Your task to perform on an android device: Open Google Chrome and click the shortcut for Amazon.com Image 0: 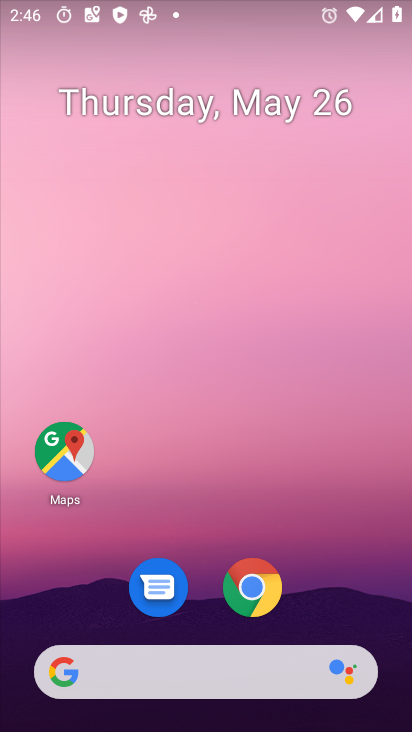
Step 0: drag from (363, 619) to (394, 161)
Your task to perform on an android device: Open Google Chrome and click the shortcut for Amazon.com Image 1: 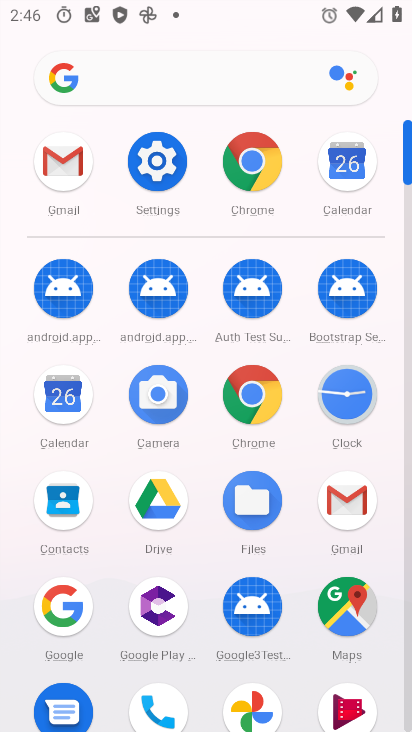
Step 1: click (271, 403)
Your task to perform on an android device: Open Google Chrome and click the shortcut for Amazon.com Image 2: 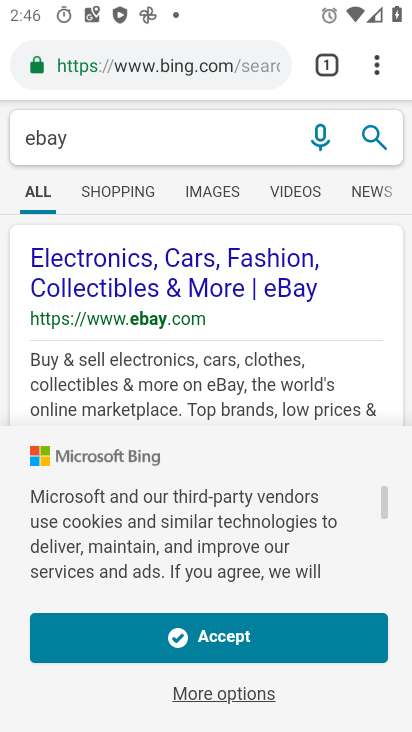
Step 2: press back button
Your task to perform on an android device: Open Google Chrome and click the shortcut for Amazon.com Image 3: 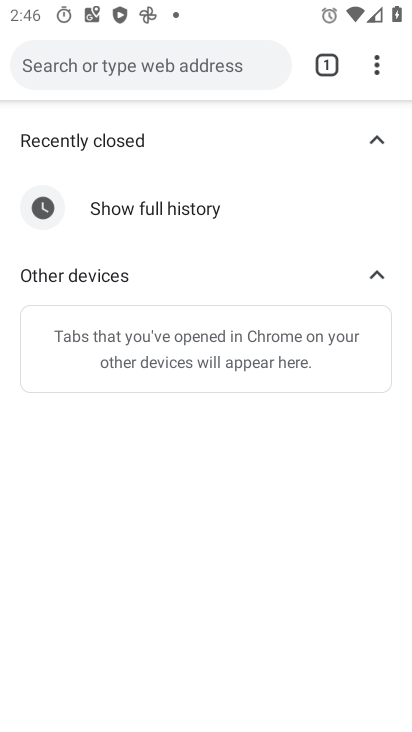
Step 3: press back button
Your task to perform on an android device: Open Google Chrome and click the shortcut for Amazon.com Image 4: 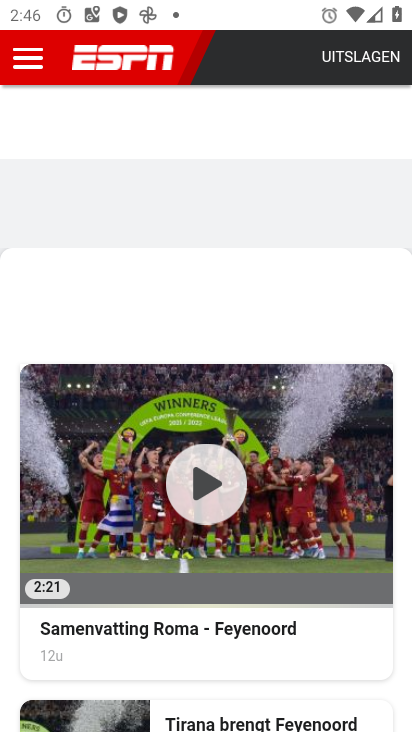
Step 4: press back button
Your task to perform on an android device: Open Google Chrome and click the shortcut for Amazon.com Image 5: 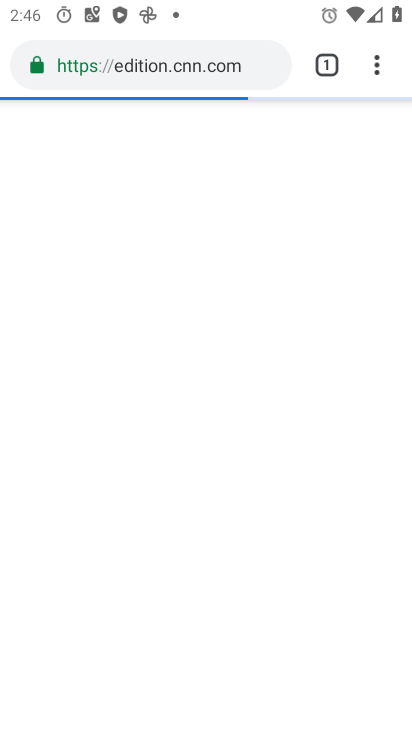
Step 5: press back button
Your task to perform on an android device: Open Google Chrome and click the shortcut for Amazon.com Image 6: 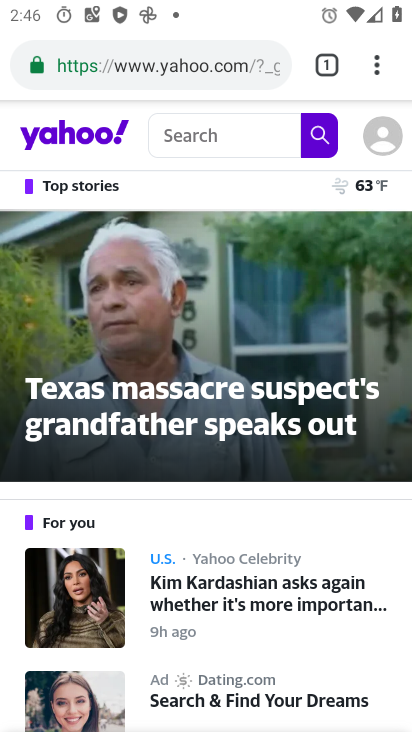
Step 6: press back button
Your task to perform on an android device: Open Google Chrome and click the shortcut for Amazon.com Image 7: 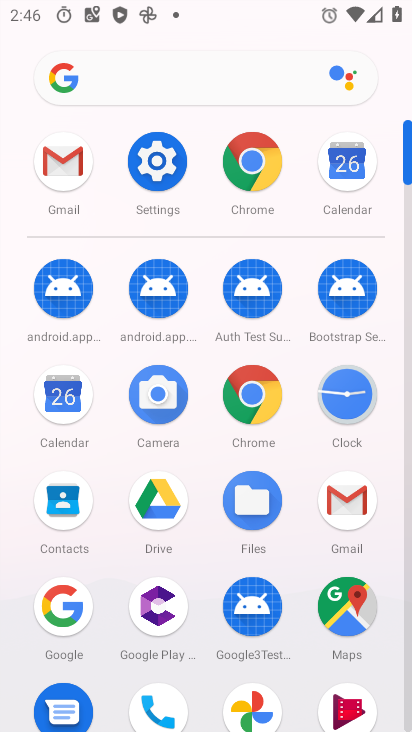
Step 7: click (261, 407)
Your task to perform on an android device: Open Google Chrome and click the shortcut for Amazon.com Image 8: 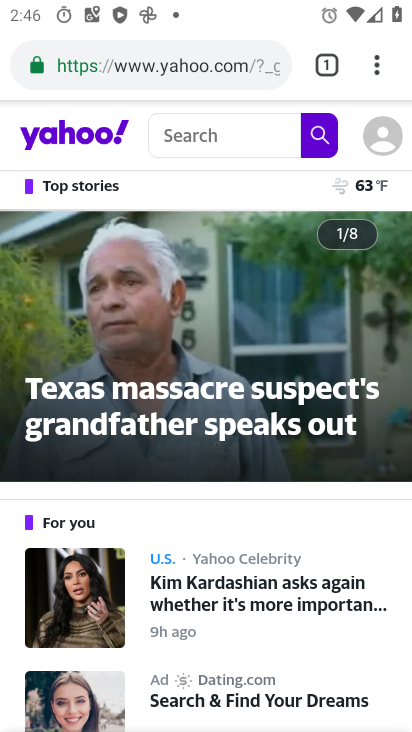
Step 8: click (214, 68)
Your task to perform on an android device: Open Google Chrome and click the shortcut for Amazon.com Image 9: 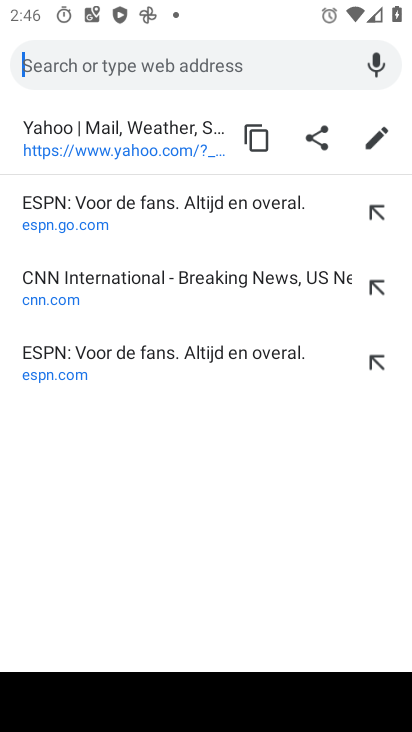
Step 9: type "amazon.com"
Your task to perform on an android device: Open Google Chrome and click the shortcut for Amazon.com Image 10: 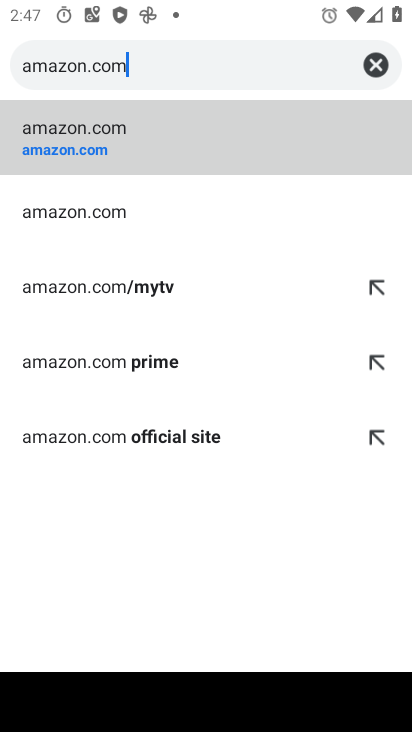
Step 10: click (144, 151)
Your task to perform on an android device: Open Google Chrome and click the shortcut for Amazon.com Image 11: 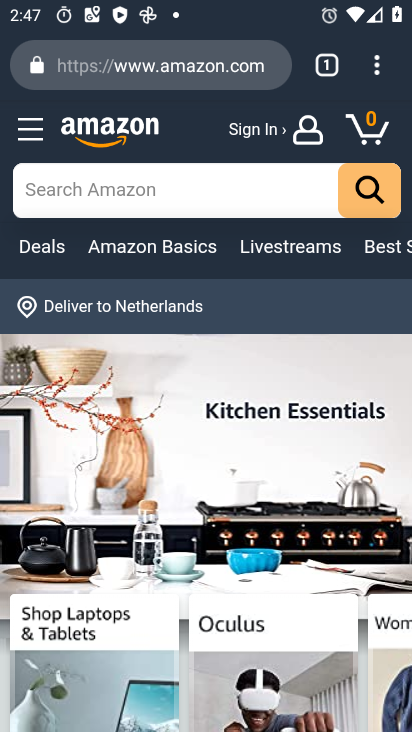
Step 11: task complete